Your task to perform on an android device: Open Reddit.com Image 0: 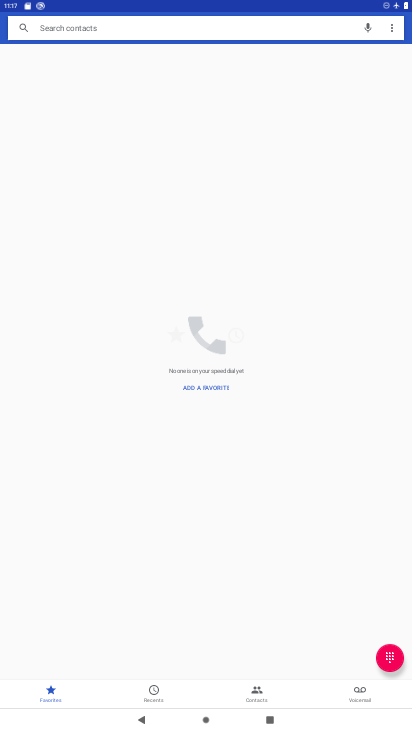
Step 0: press home button
Your task to perform on an android device: Open Reddit.com Image 1: 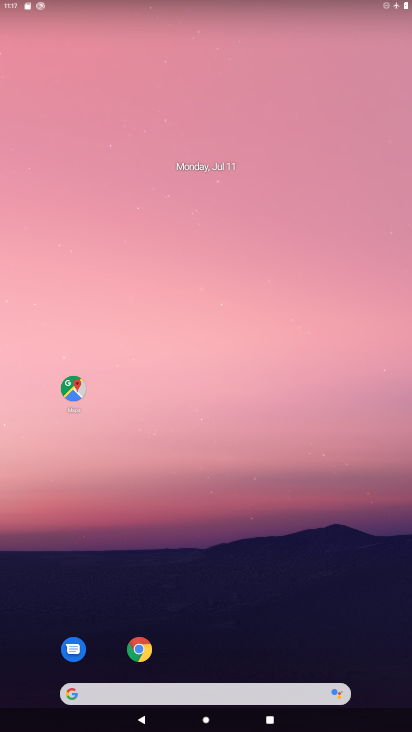
Step 1: drag from (332, 613) to (284, 104)
Your task to perform on an android device: Open Reddit.com Image 2: 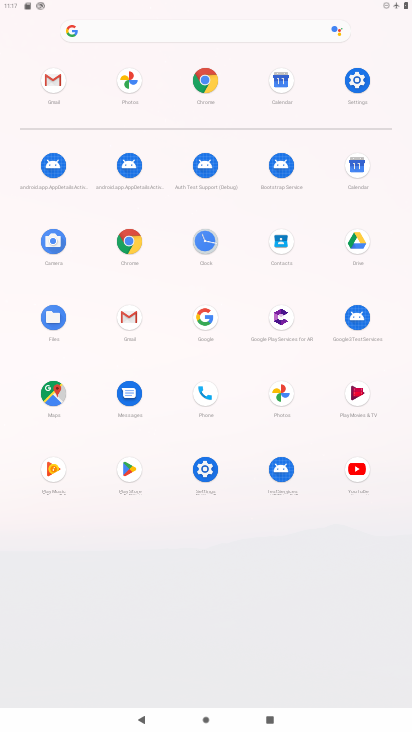
Step 2: click (203, 78)
Your task to perform on an android device: Open Reddit.com Image 3: 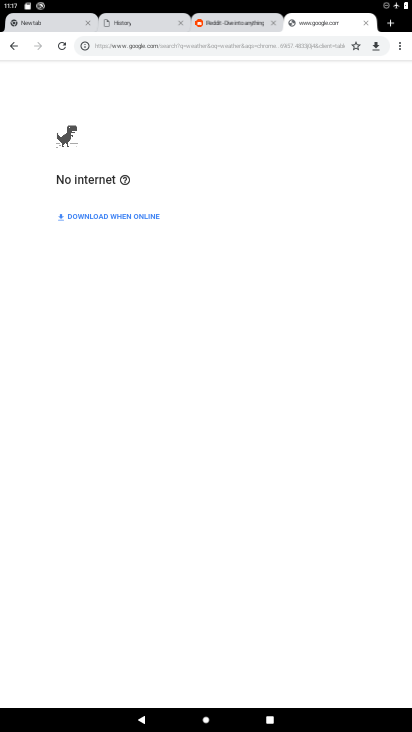
Step 3: click (217, 46)
Your task to perform on an android device: Open Reddit.com Image 4: 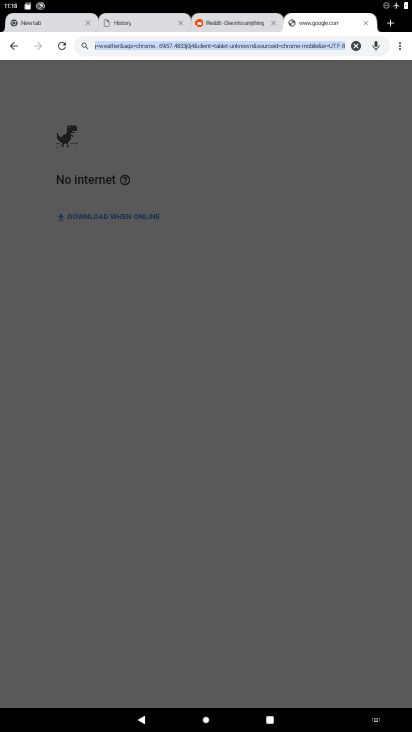
Step 4: type "reddit.com"
Your task to perform on an android device: Open Reddit.com Image 5: 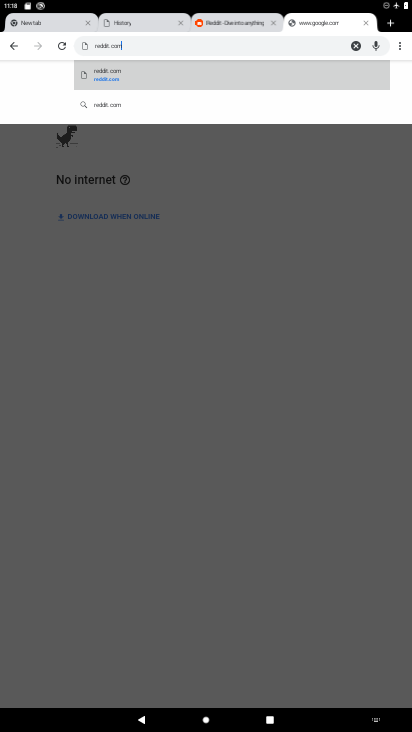
Step 5: click (101, 77)
Your task to perform on an android device: Open Reddit.com Image 6: 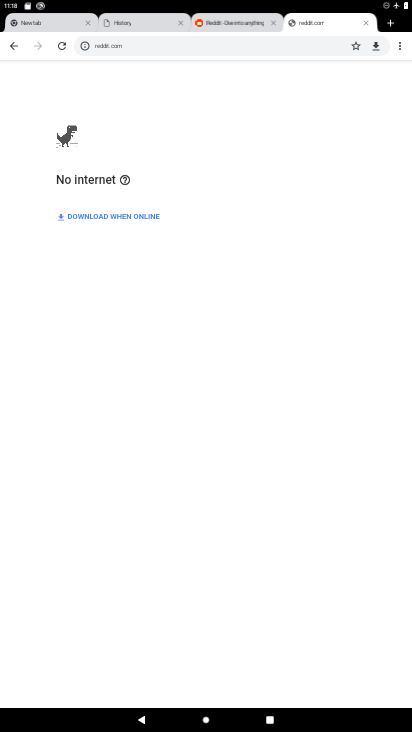
Step 6: task complete